Your task to perform on an android device: all mails in gmail Image 0: 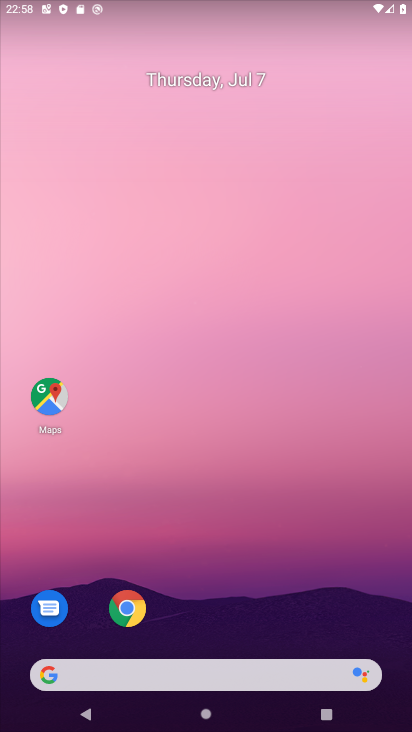
Step 0: drag from (231, 607) to (228, 527)
Your task to perform on an android device: all mails in gmail Image 1: 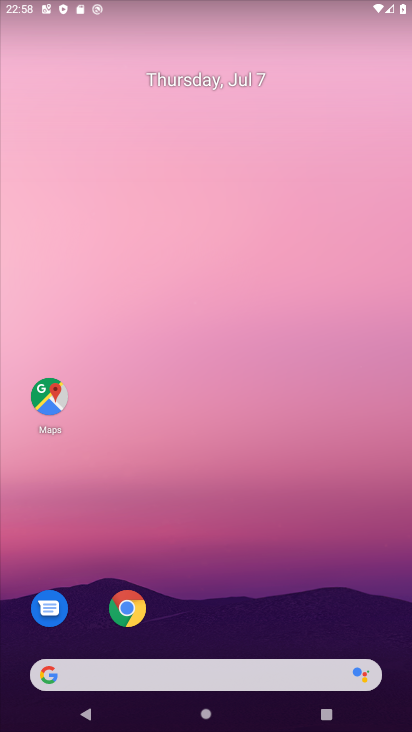
Step 1: click (230, 289)
Your task to perform on an android device: all mails in gmail Image 2: 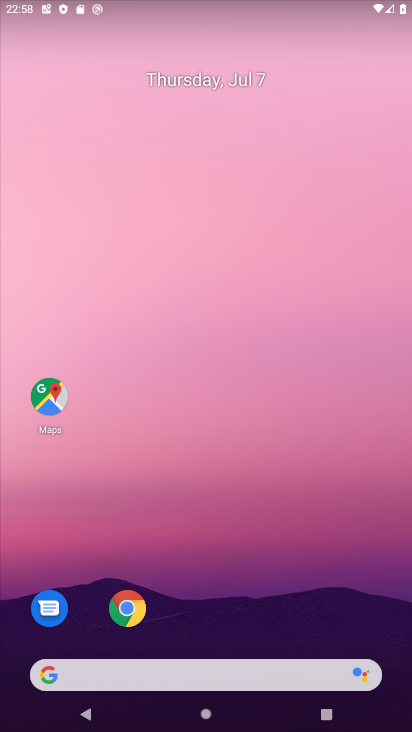
Step 2: drag from (232, 658) to (242, 83)
Your task to perform on an android device: all mails in gmail Image 3: 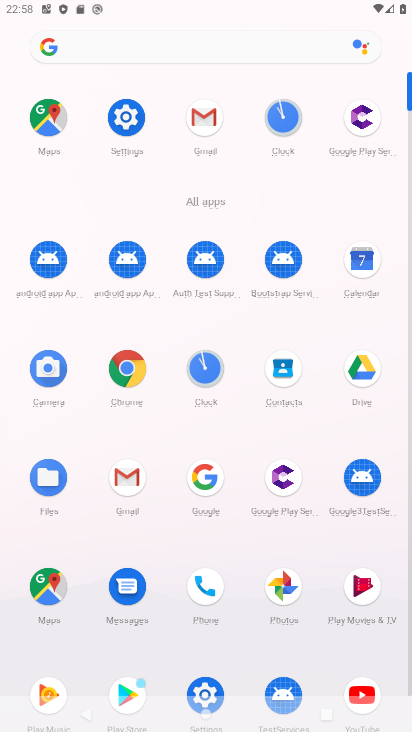
Step 3: click (209, 110)
Your task to perform on an android device: all mails in gmail Image 4: 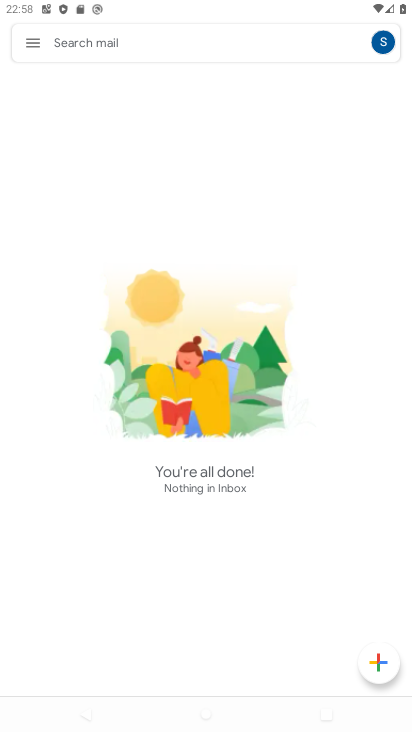
Step 4: click (37, 39)
Your task to perform on an android device: all mails in gmail Image 5: 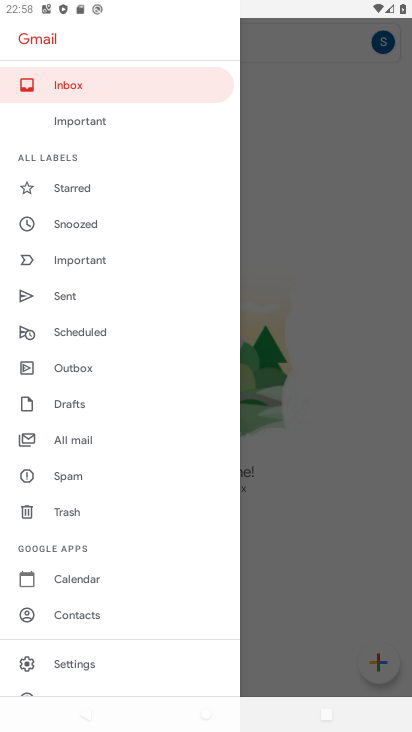
Step 5: click (75, 441)
Your task to perform on an android device: all mails in gmail Image 6: 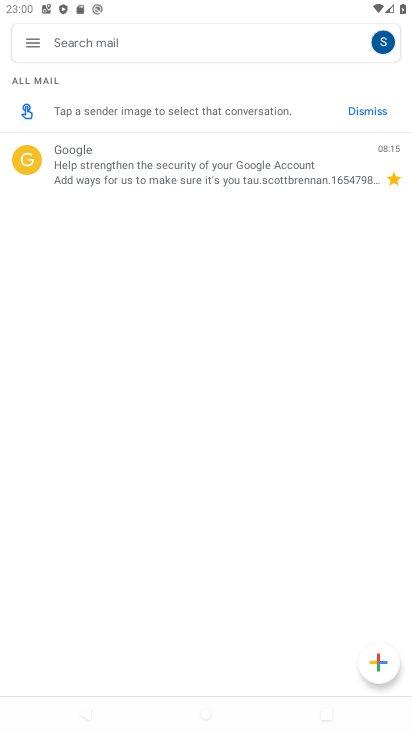
Step 6: task complete